Your task to perform on an android device: What's the weather today? Image 0: 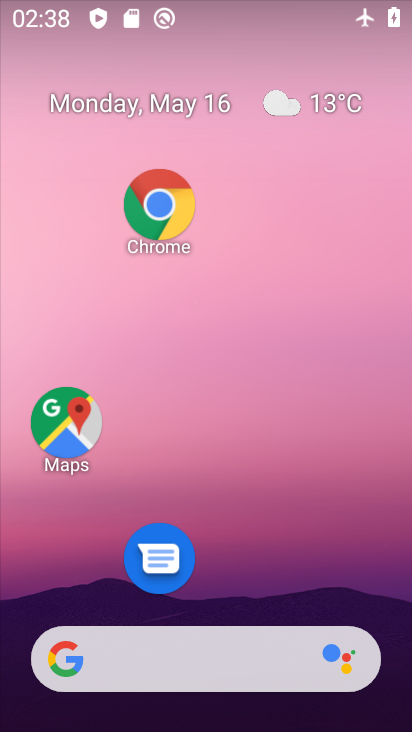
Step 0: click (212, 631)
Your task to perform on an android device: What's the weather today? Image 1: 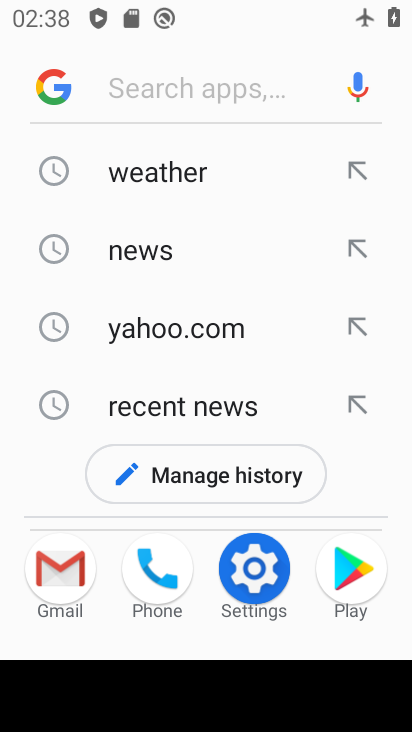
Step 1: click (106, 187)
Your task to perform on an android device: What's the weather today? Image 2: 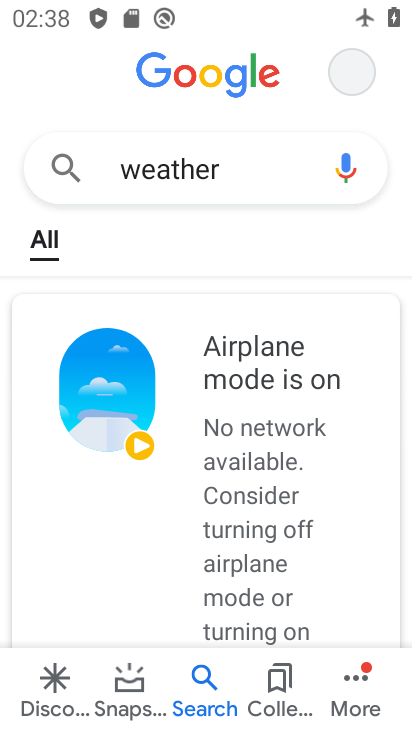
Step 2: task complete